Your task to perform on an android device: turn notification dots on Image 0: 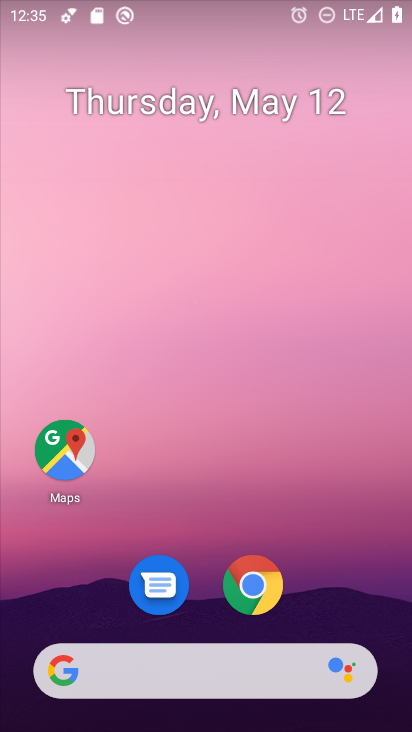
Step 0: drag from (173, 508) to (159, 24)
Your task to perform on an android device: turn notification dots on Image 1: 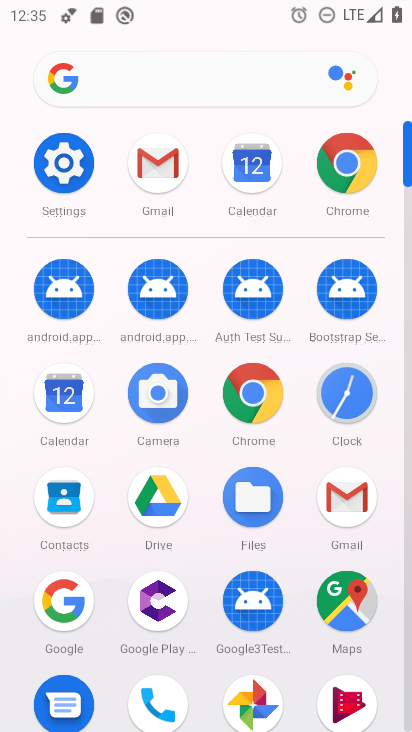
Step 1: click (59, 158)
Your task to perform on an android device: turn notification dots on Image 2: 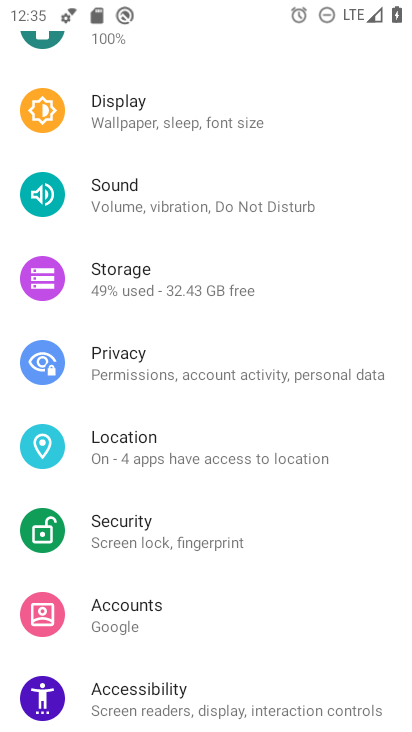
Step 2: drag from (222, 159) to (255, 534)
Your task to perform on an android device: turn notification dots on Image 3: 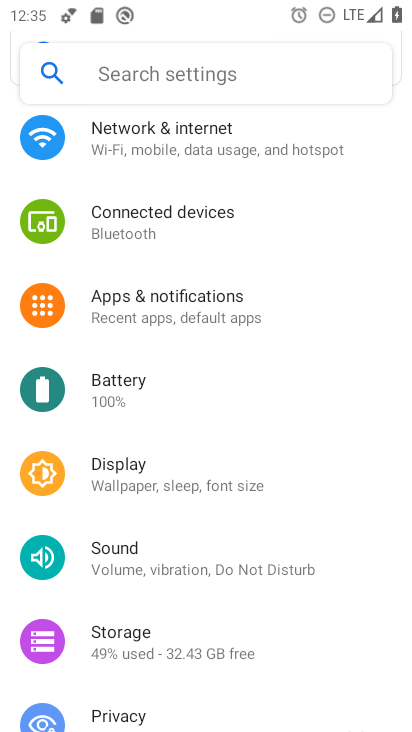
Step 3: click (206, 298)
Your task to perform on an android device: turn notification dots on Image 4: 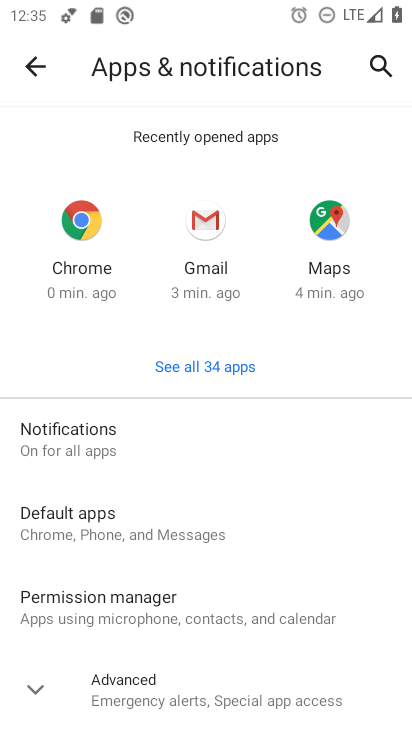
Step 4: click (33, 682)
Your task to perform on an android device: turn notification dots on Image 5: 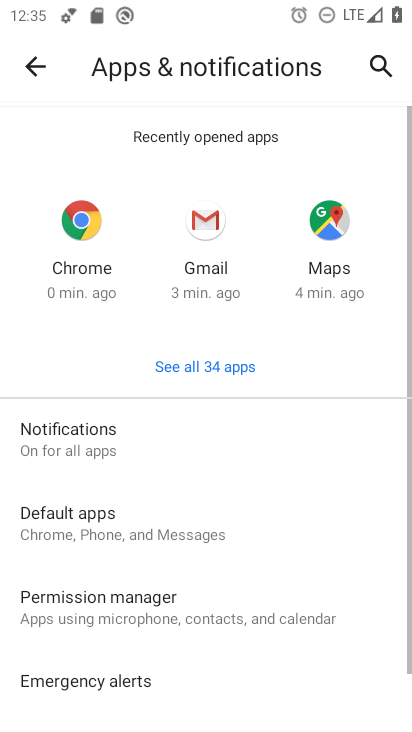
Step 5: drag from (227, 543) to (236, 211)
Your task to perform on an android device: turn notification dots on Image 6: 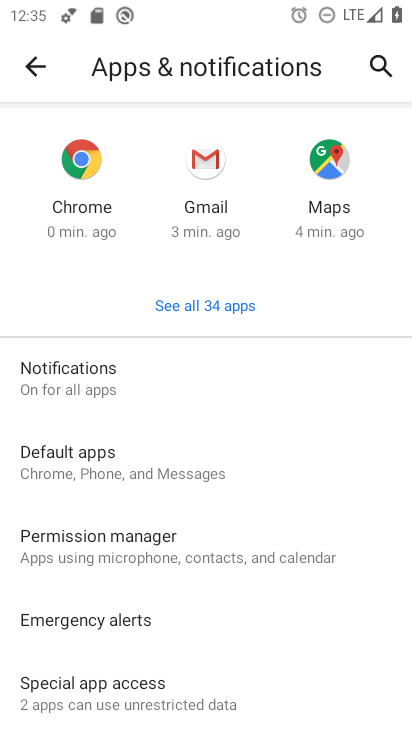
Step 6: click (141, 391)
Your task to perform on an android device: turn notification dots on Image 7: 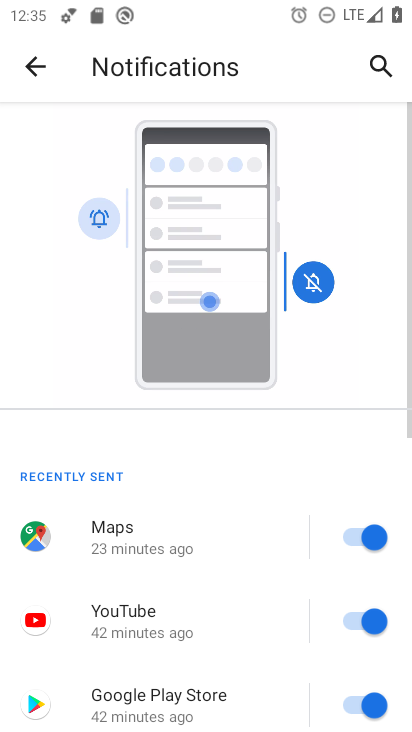
Step 7: drag from (163, 599) to (174, 116)
Your task to perform on an android device: turn notification dots on Image 8: 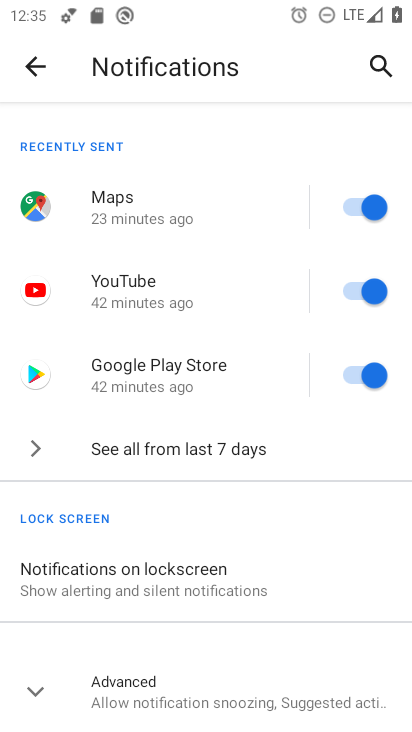
Step 8: click (27, 687)
Your task to perform on an android device: turn notification dots on Image 9: 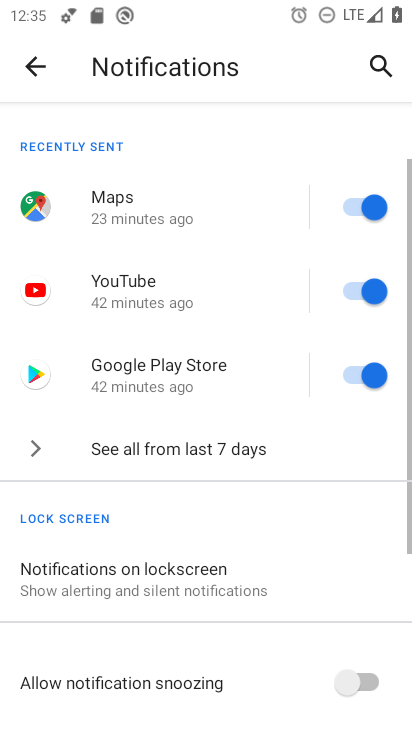
Step 9: drag from (197, 579) to (235, 195)
Your task to perform on an android device: turn notification dots on Image 10: 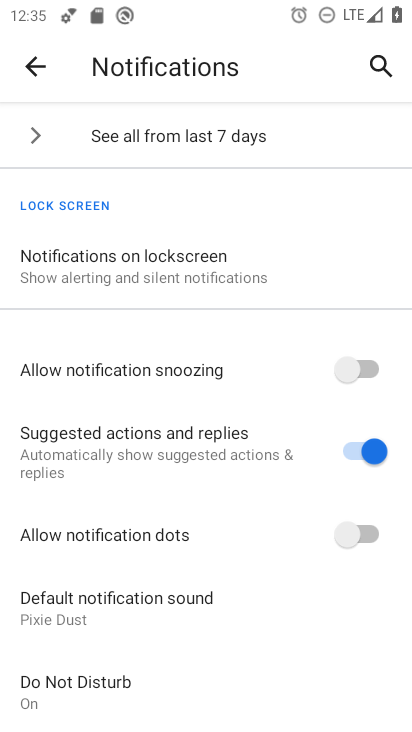
Step 10: click (362, 525)
Your task to perform on an android device: turn notification dots on Image 11: 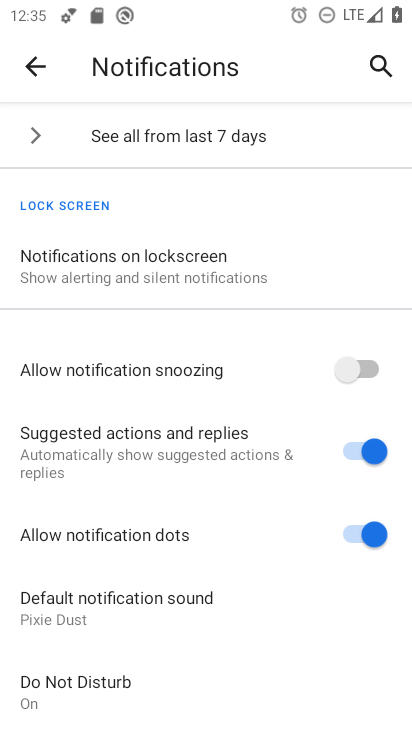
Step 11: task complete